Your task to perform on an android device: turn on sleep mode Image 0: 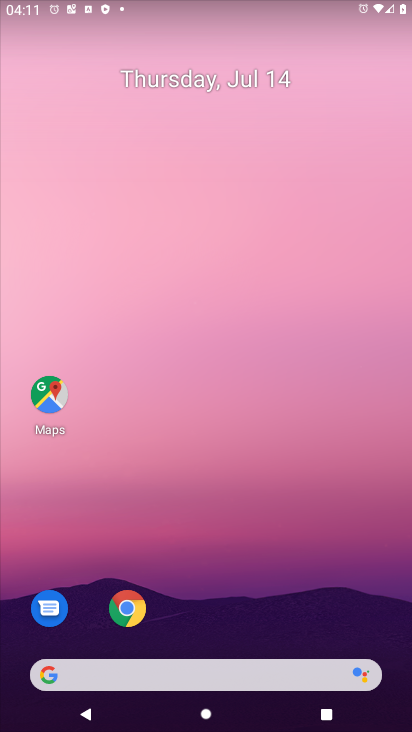
Step 0: drag from (379, 630) to (316, 153)
Your task to perform on an android device: turn on sleep mode Image 1: 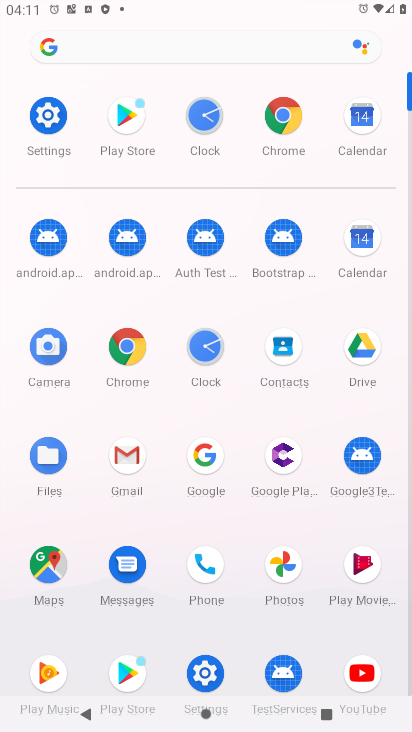
Step 1: click (203, 674)
Your task to perform on an android device: turn on sleep mode Image 2: 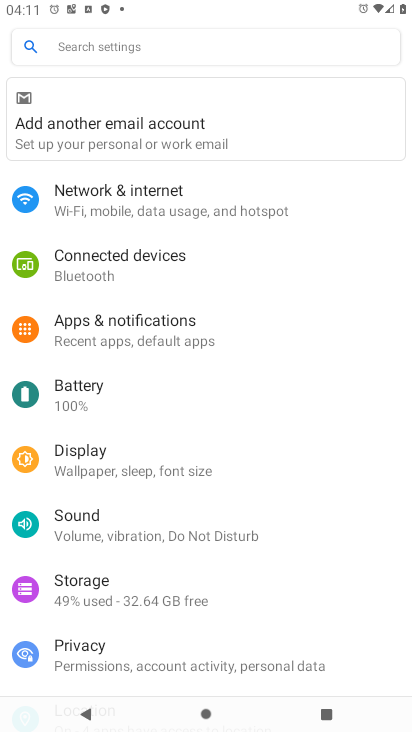
Step 2: click (92, 460)
Your task to perform on an android device: turn on sleep mode Image 3: 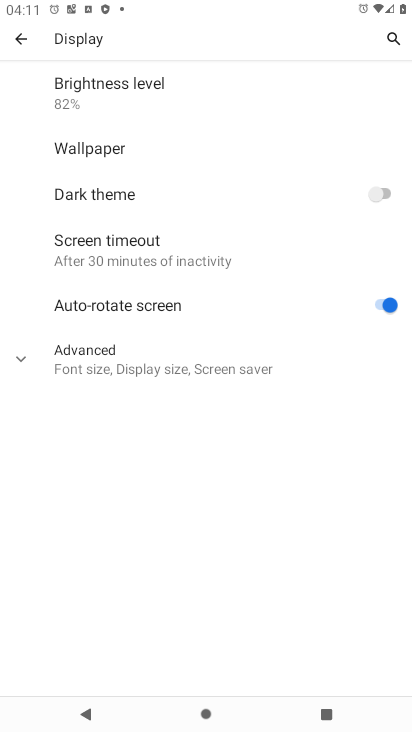
Step 3: click (20, 355)
Your task to perform on an android device: turn on sleep mode Image 4: 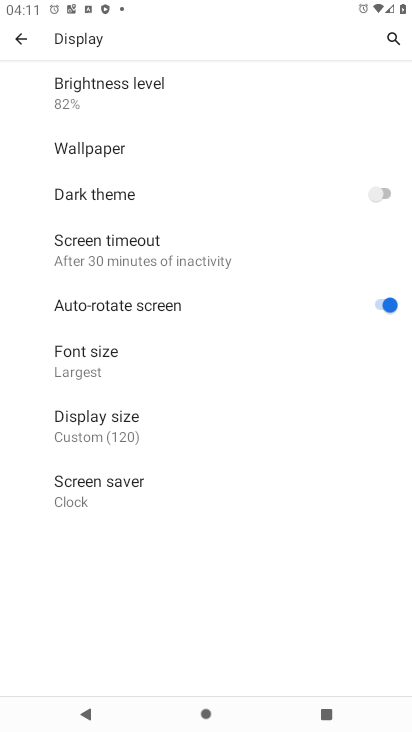
Step 4: task complete